Your task to perform on an android device: empty trash in google photos Image 0: 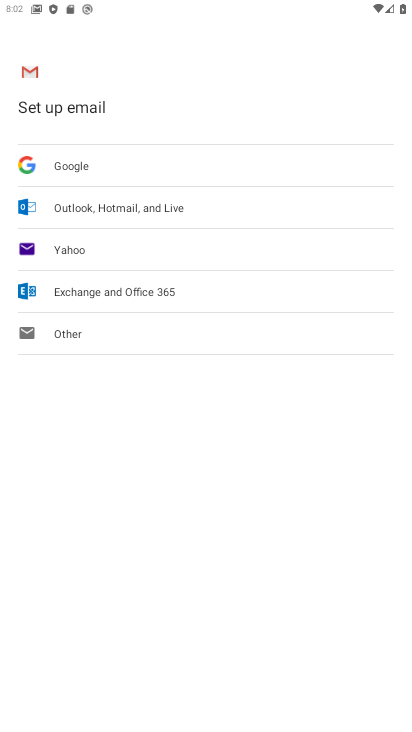
Step 0: press home button
Your task to perform on an android device: empty trash in google photos Image 1: 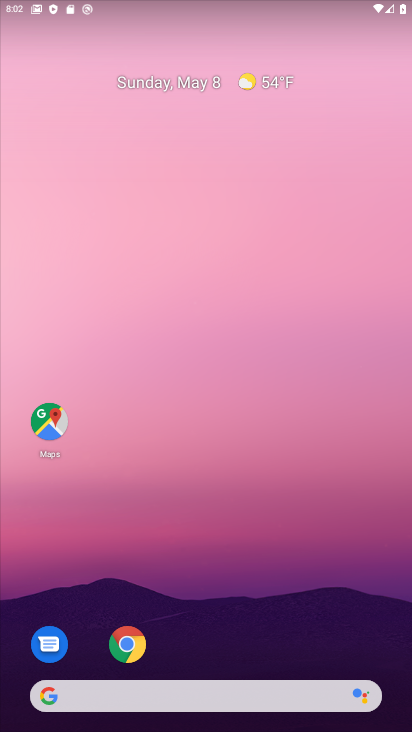
Step 1: drag from (168, 679) to (229, 214)
Your task to perform on an android device: empty trash in google photos Image 2: 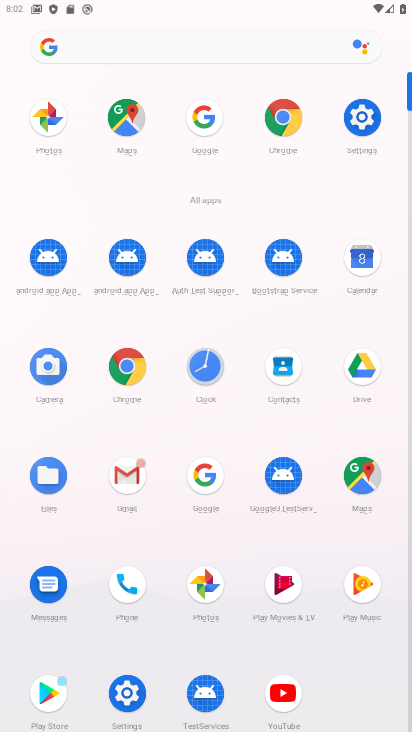
Step 2: click (198, 582)
Your task to perform on an android device: empty trash in google photos Image 3: 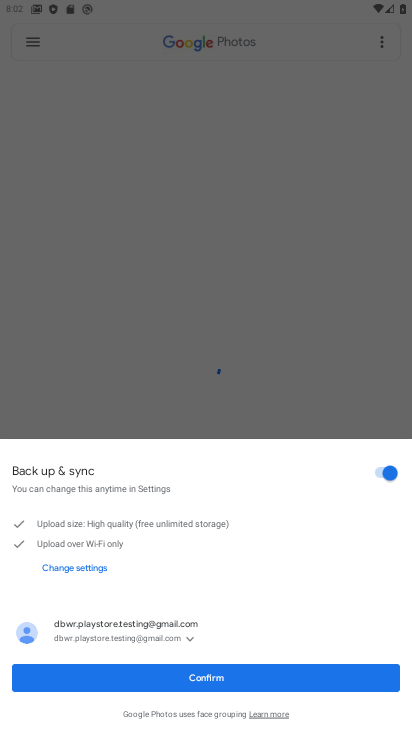
Step 3: click (197, 678)
Your task to perform on an android device: empty trash in google photos Image 4: 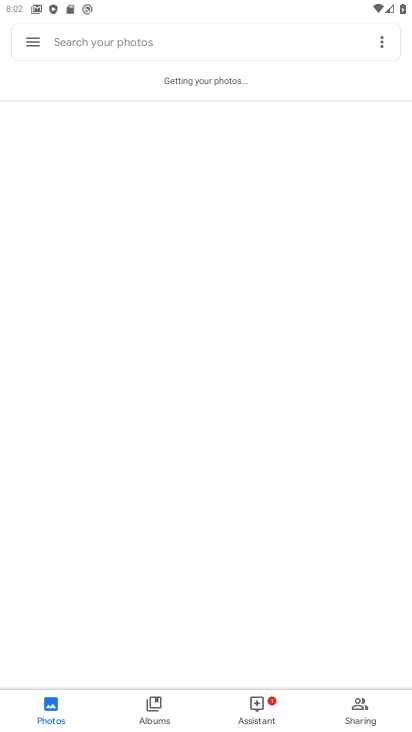
Step 4: click (31, 44)
Your task to perform on an android device: empty trash in google photos Image 5: 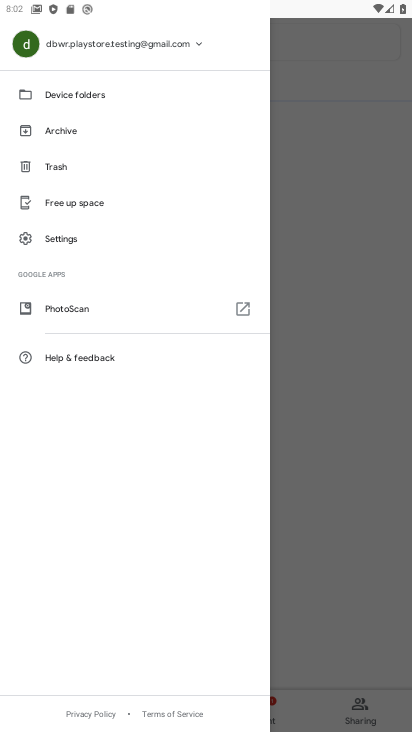
Step 5: click (58, 163)
Your task to perform on an android device: empty trash in google photos Image 6: 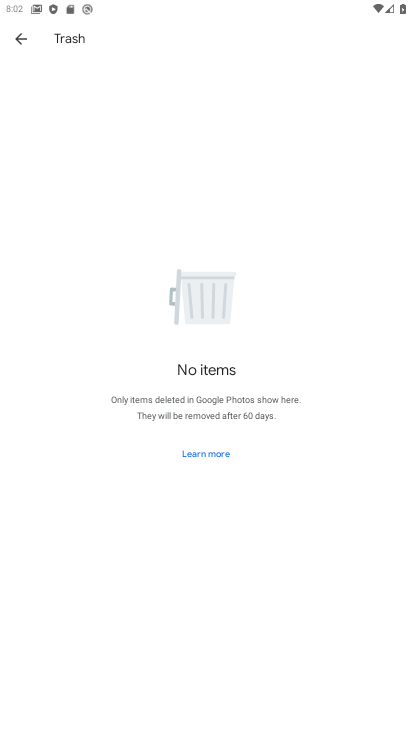
Step 6: task complete